Your task to perform on an android device: Go to CNN.com Image 0: 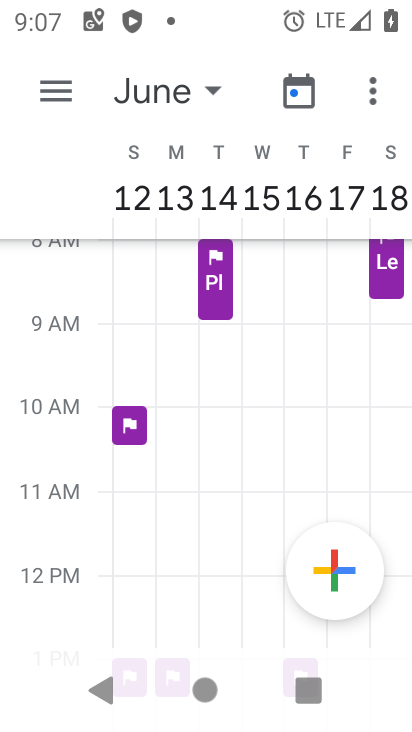
Step 0: press home button
Your task to perform on an android device: Go to CNN.com Image 1: 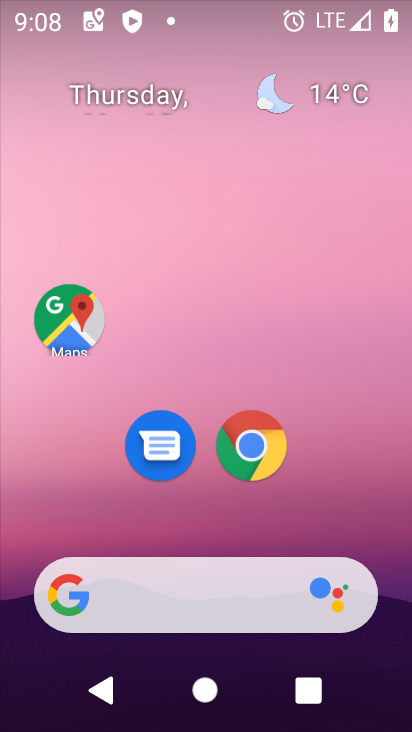
Step 1: click (267, 444)
Your task to perform on an android device: Go to CNN.com Image 2: 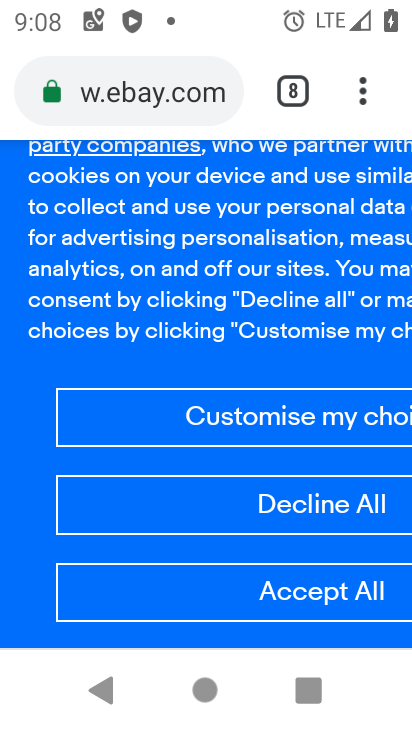
Step 2: click (363, 102)
Your task to perform on an android device: Go to CNN.com Image 3: 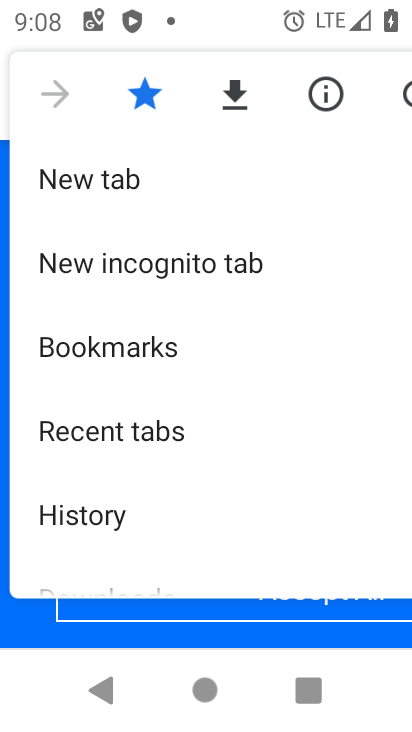
Step 3: click (118, 181)
Your task to perform on an android device: Go to CNN.com Image 4: 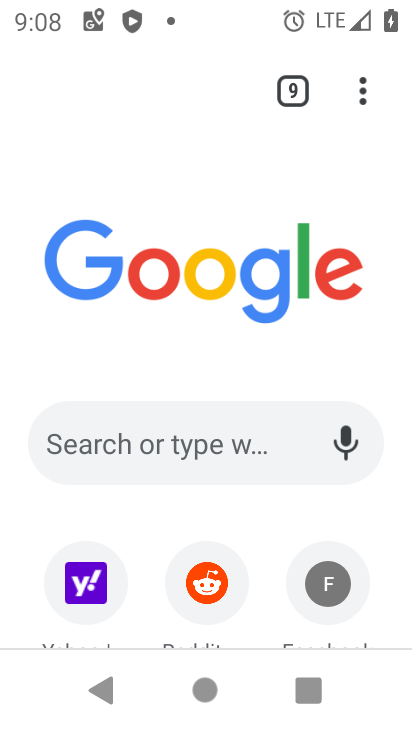
Step 4: click (128, 435)
Your task to perform on an android device: Go to CNN.com Image 5: 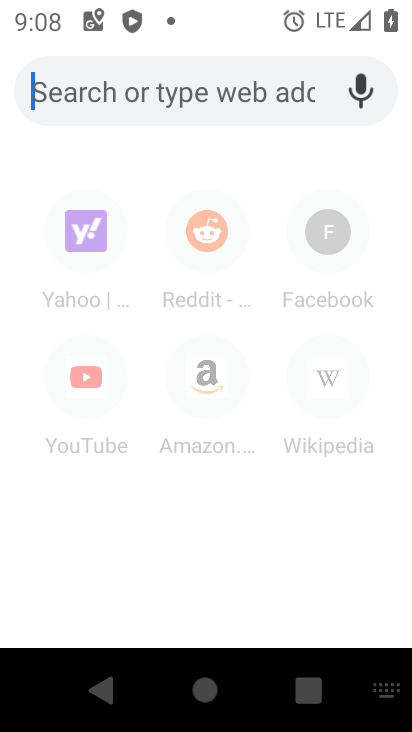
Step 5: type "CNN.com"
Your task to perform on an android device: Go to CNN.com Image 6: 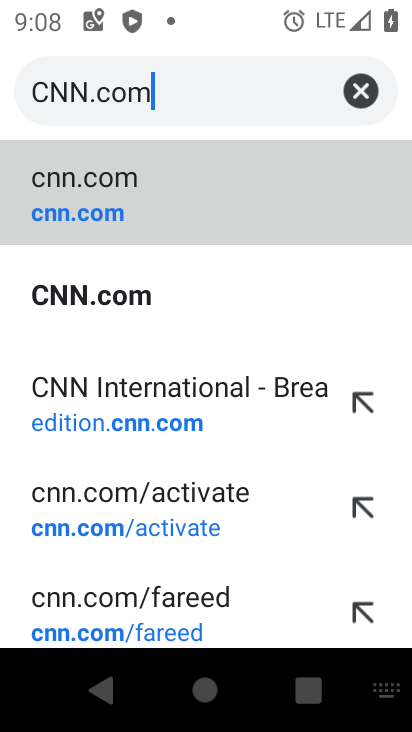
Step 6: click (119, 185)
Your task to perform on an android device: Go to CNN.com Image 7: 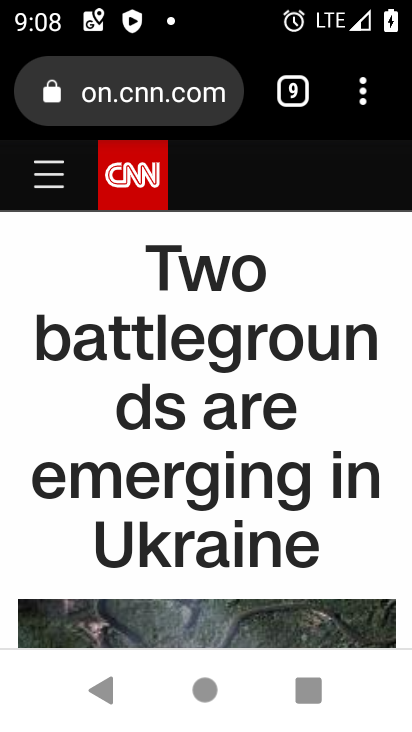
Step 7: task complete